Your task to perform on an android device: Show me popular games on the Play Store Image 0: 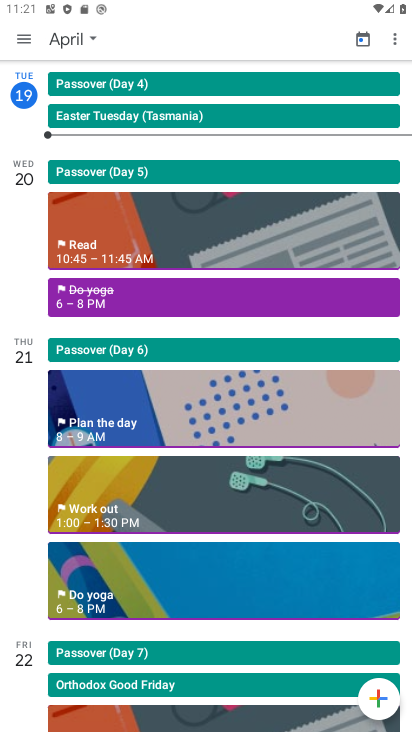
Step 0: press home button
Your task to perform on an android device: Show me popular games on the Play Store Image 1: 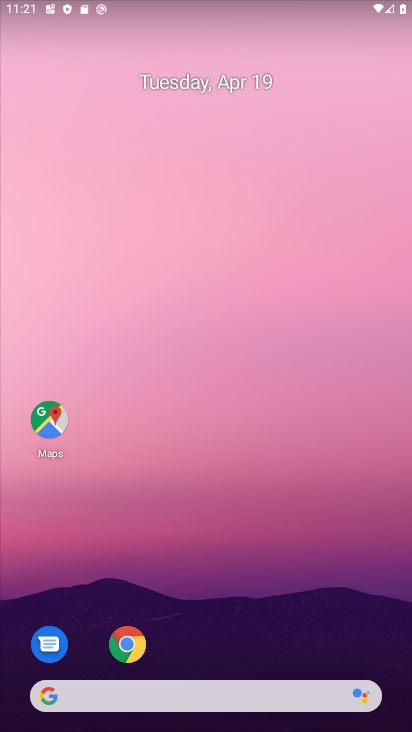
Step 1: drag from (195, 705) to (195, 122)
Your task to perform on an android device: Show me popular games on the Play Store Image 2: 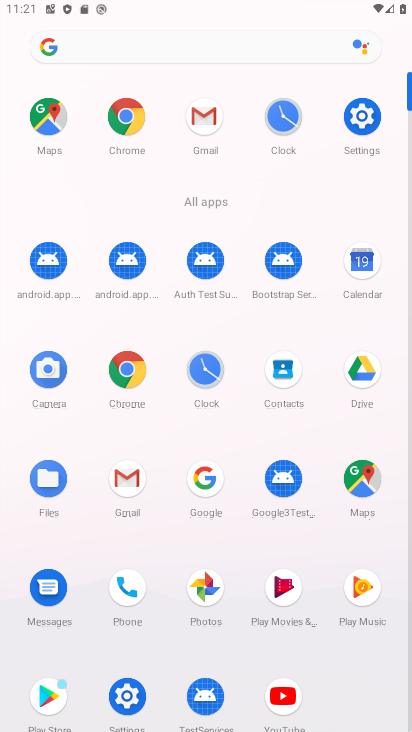
Step 2: click (47, 687)
Your task to perform on an android device: Show me popular games on the Play Store Image 3: 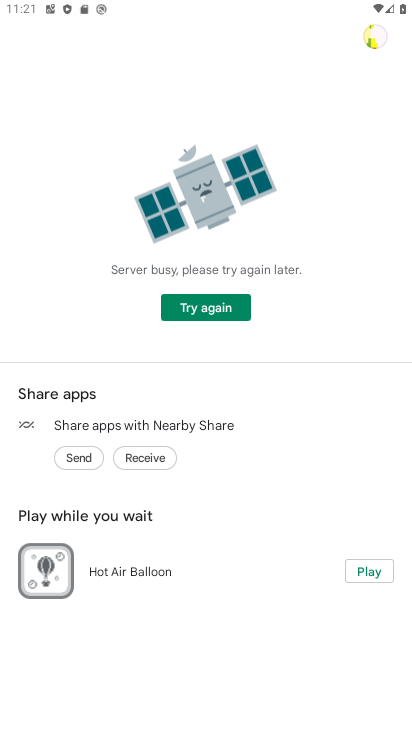
Step 3: click (211, 308)
Your task to perform on an android device: Show me popular games on the Play Store Image 4: 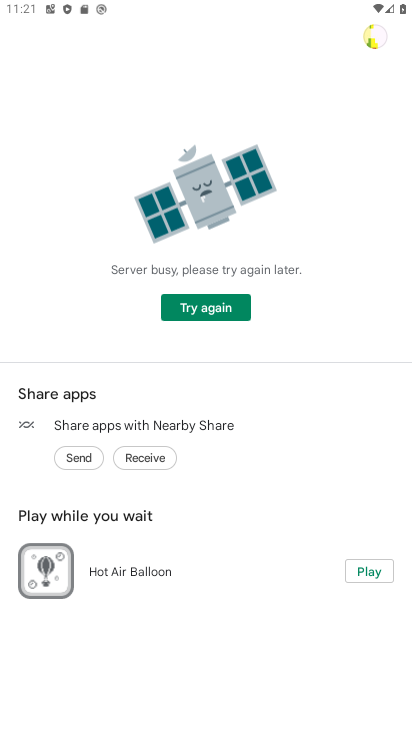
Step 4: click (211, 308)
Your task to perform on an android device: Show me popular games on the Play Store Image 5: 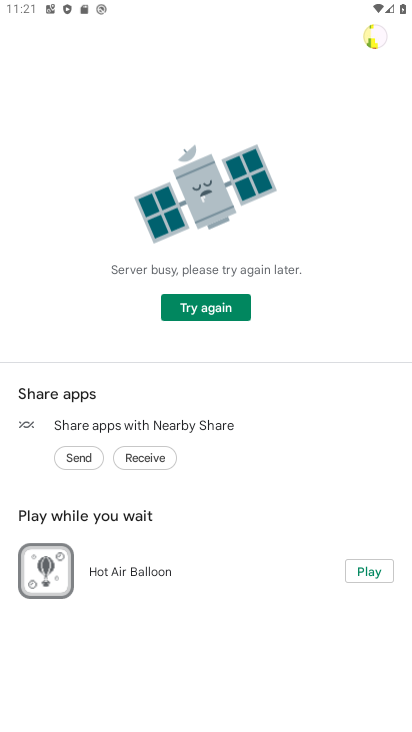
Step 5: task complete